Your task to perform on an android device: turn on priority inbox in the gmail app Image 0: 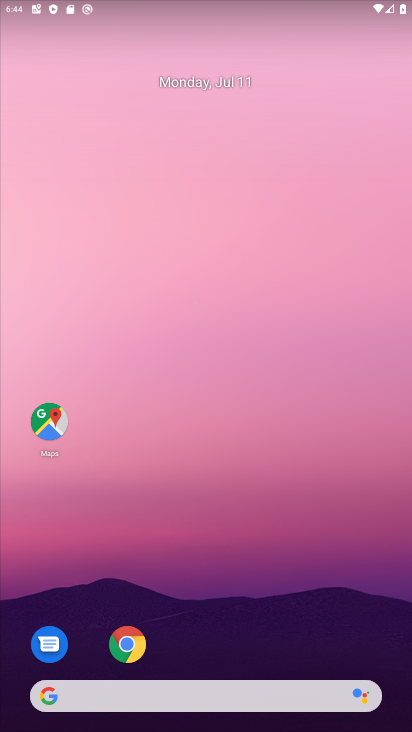
Step 0: drag from (313, 680) to (365, 127)
Your task to perform on an android device: turn on priority inbox in the gmail app Image 1: 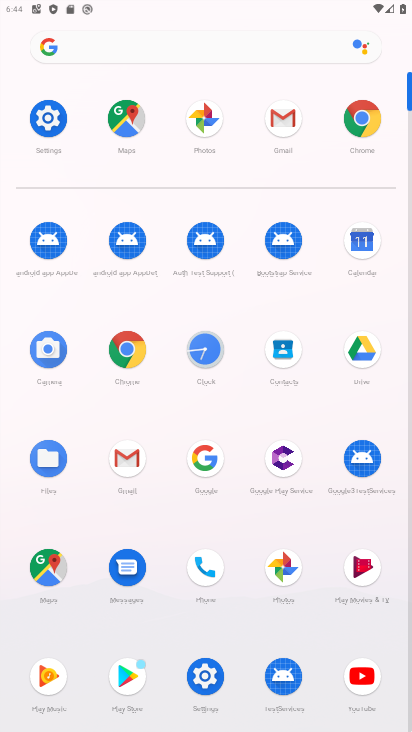
Step 1: click (114, 475)
Your task to perform on an android device: turn on priority inbox in the gmail app Image 2: 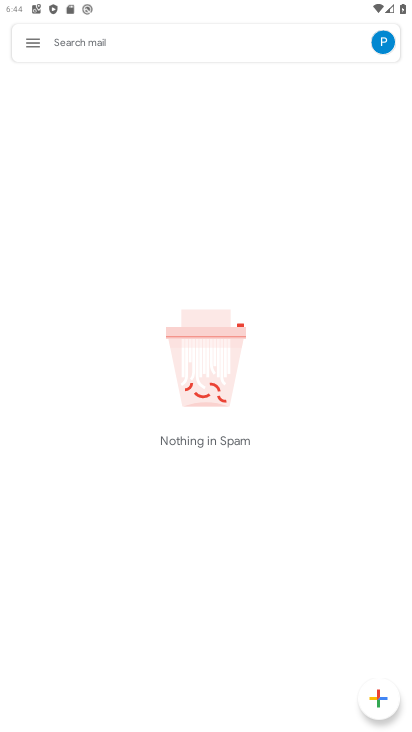
Step 2: click (25, 43)
Your task to perform on an android device: turn on priority inbox in the gmail app Image 3: 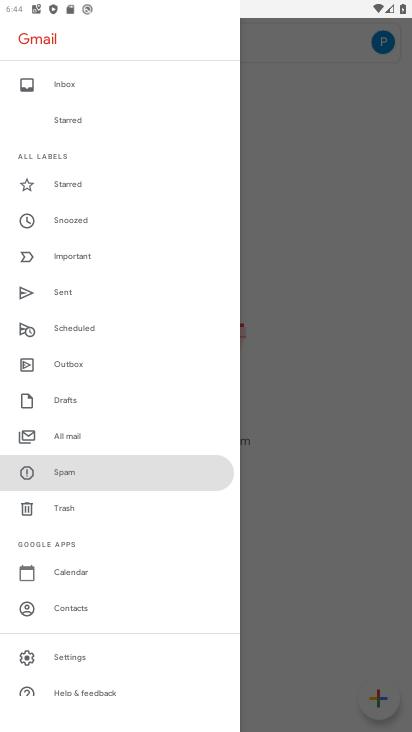
Step 3: click (79, 656)
Your task to perform on an android device: turn on priority inbox in the gmail app Image 4: 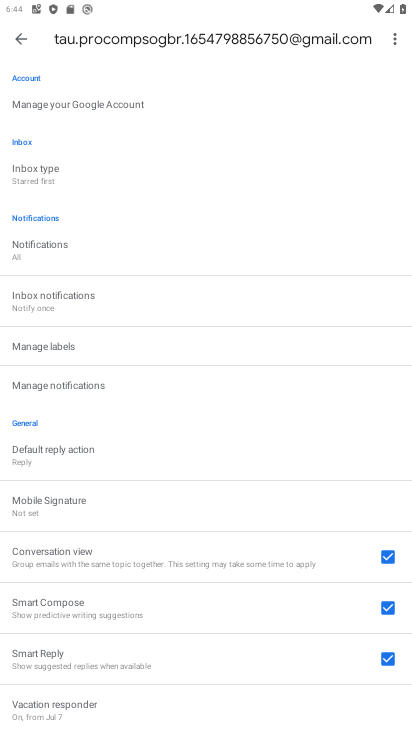
Step 4: click (44, 174)
Your task to perform on an android device: turn on priority inbox in the gmail app Image 5: 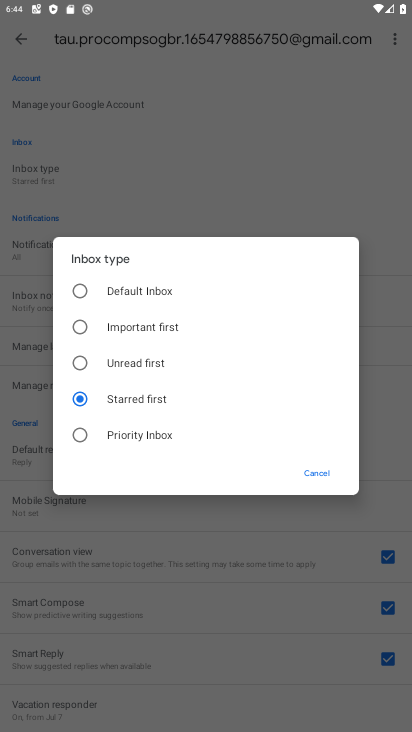
Step 5: click (140, 436)
Your task to perform on an android device: turn on priority inbox in the gmail app Image 6: 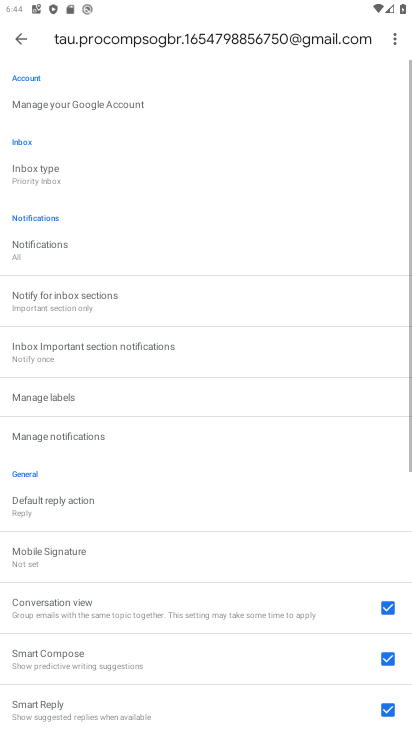
Step 6: task complete